Your task to perform on an android device: change the clock display to show seconds Image 0: 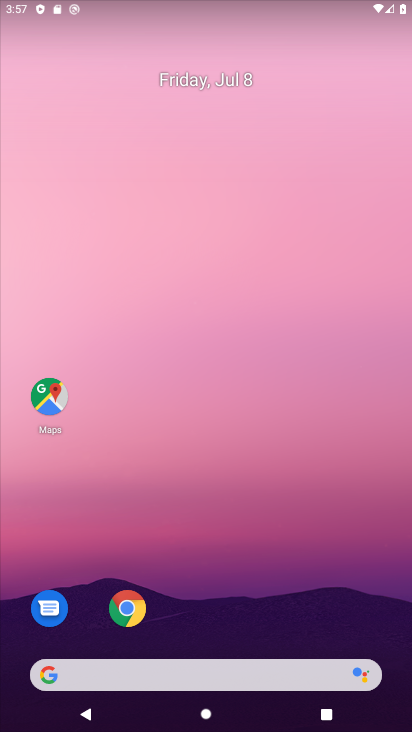
Step 0: press home button
Your task to perform on an android device: change the clock display to show seconds Image 1: 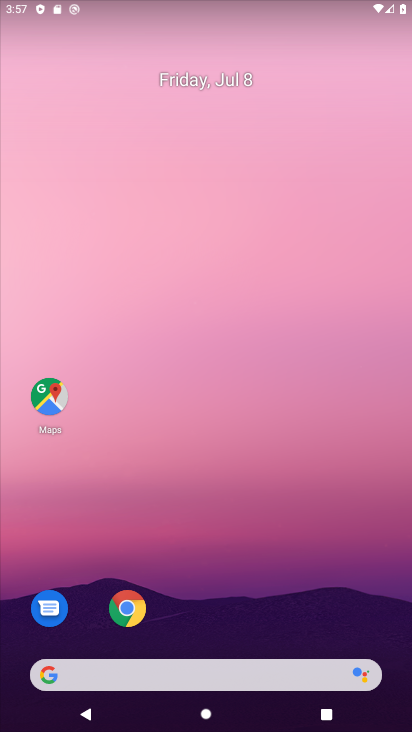
Step 1: drag from (268, 511) to (273, 112)
Your task to perform on an android device: change the clock display to show seconds Image 2: 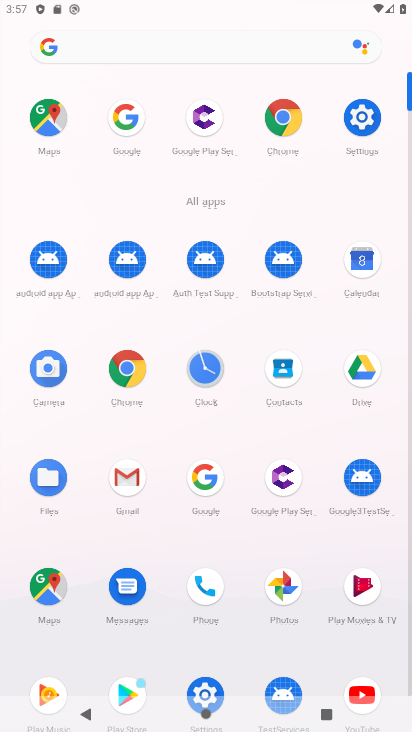
Step 2: click (205, 368)
Your task to perform on an android device: change the clock display to show seconds Image 3: 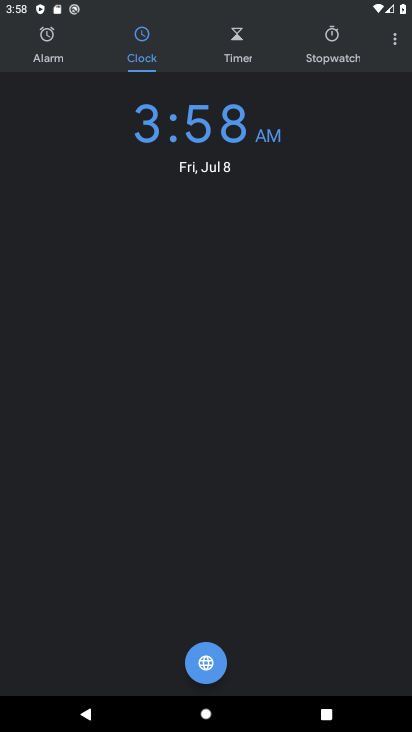
Step 3: click (393, 43)
Your task to perform on an android device: change the clock display to show seconds Image 4: 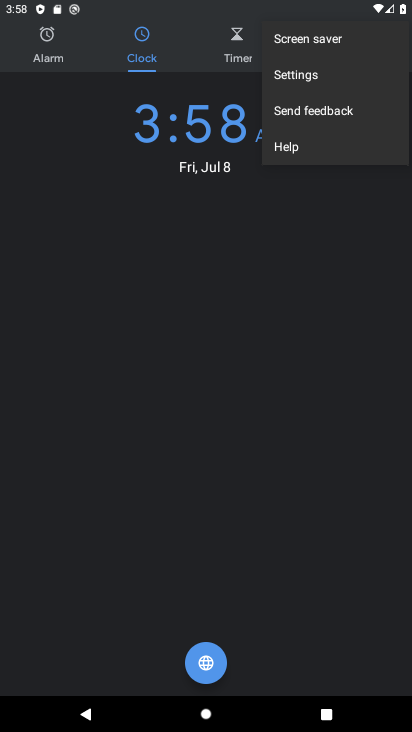
Step 4: click (293, 80)
Your task to perform on an android device: change the clock display to show seconds Image 5: 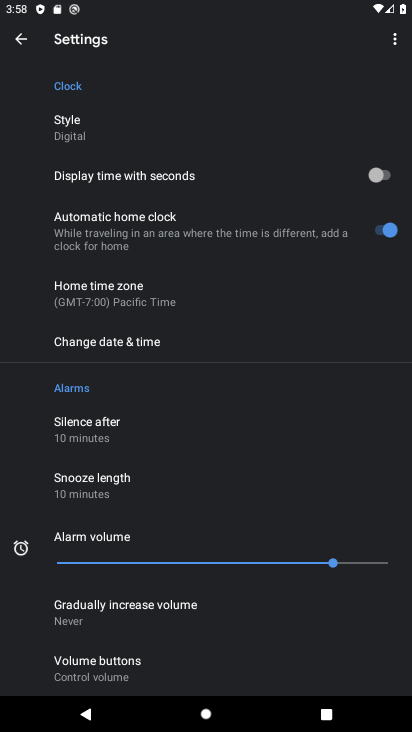
Step 5: click (375, 172)
Your task to perform on an android device: change the clock display to show seconds Image 6: 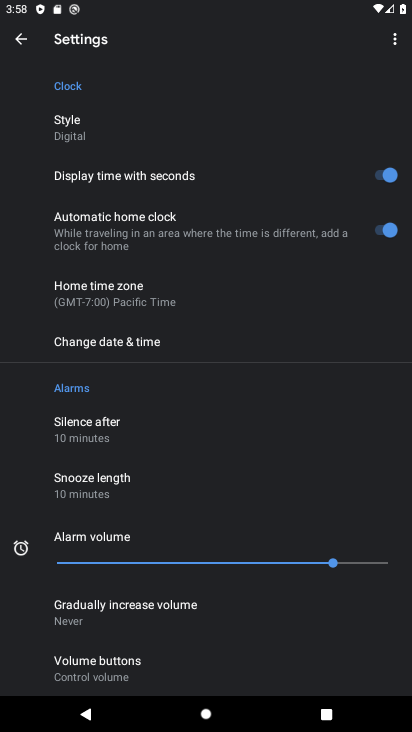
Step 6: task complete